Your task to perform on an android device: star an email in the gmail app Image 0: 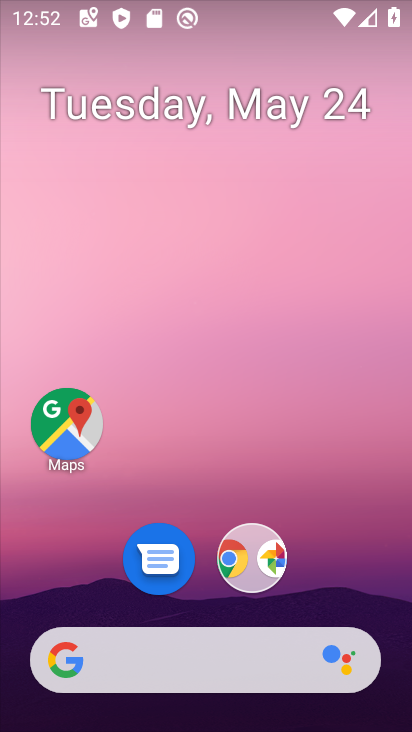
Step 0: drag from (237, 590) to (156, 39)
Your task to perform on an android device: star an email in the gmail app Image 1: 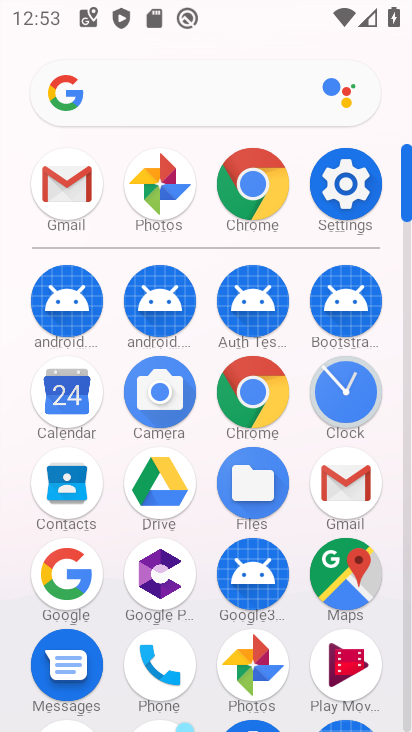
Step 1: click (343, 489)
Your task to perform on an android device: star an email in the gmail app Image 2: 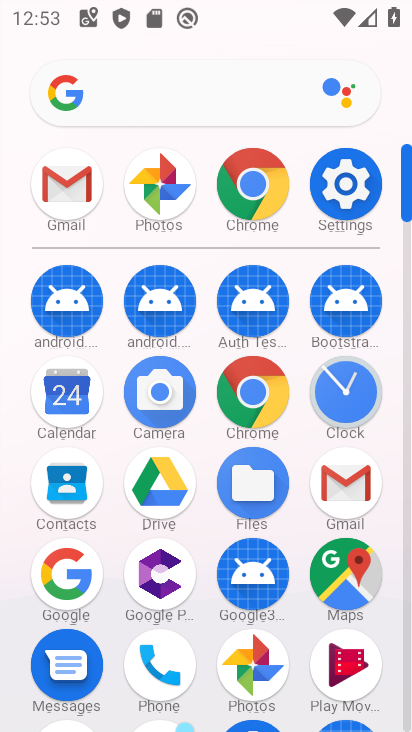
Step 2: click (344, 490)
Your task to perform on an android device: star an email in the gmail app Image 3: 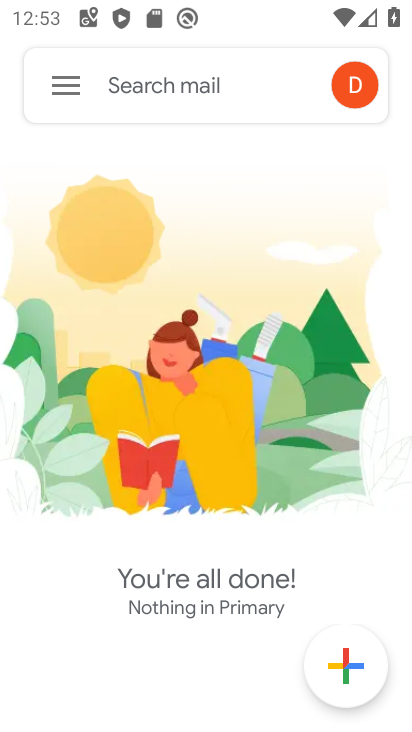
Step 3: click (59, 84)
Your task to perform on an android device: star an email in the gmail app Image 4: 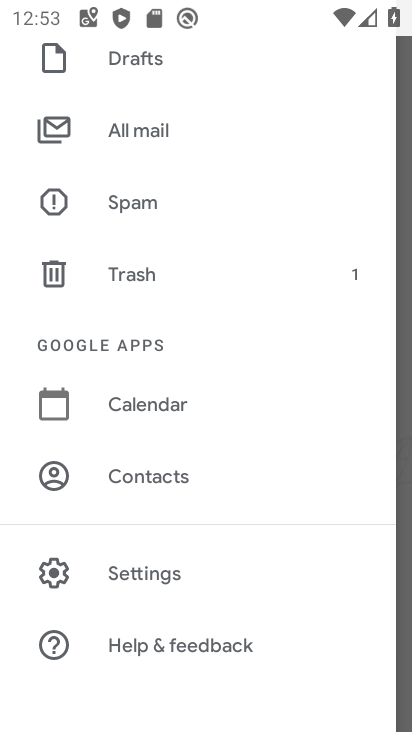
Step 4: click (138, 581)
Your task to perform on an android device: star an email in the gmail app Image 5: 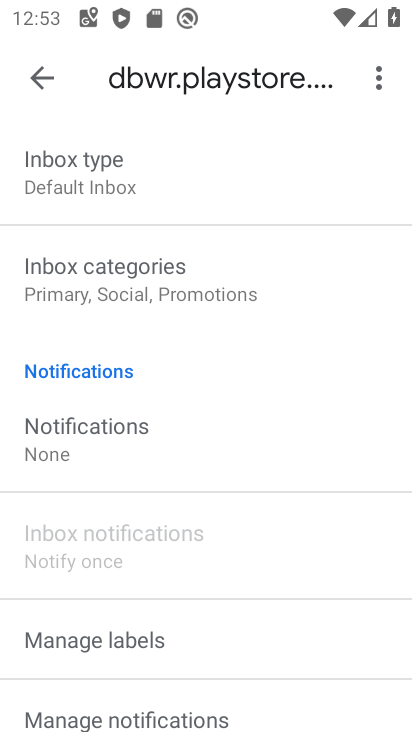
Step 5: drag from (125, 592) to (113, 237)
Your task to perform on an android device: star an email in the gmail app Image 6: 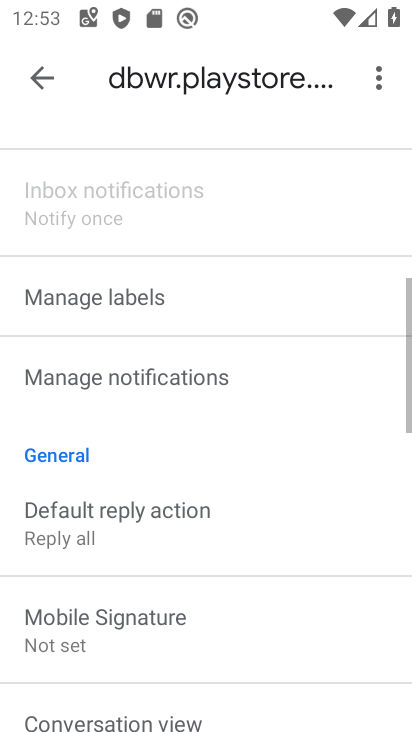
Step 6: drag from (141, 458) to (135, 185)
Your task to perform on an android device: star an email in the gmail app Image 7: 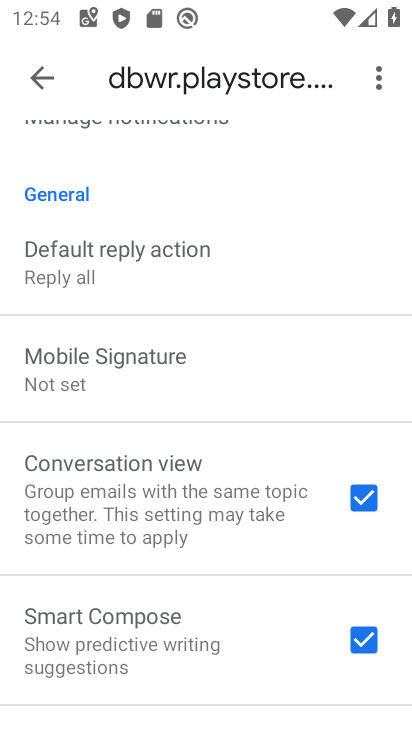
Step 7: click (42, 74)
Your task to perform on an android device: star an email in the gmail app Image 8: 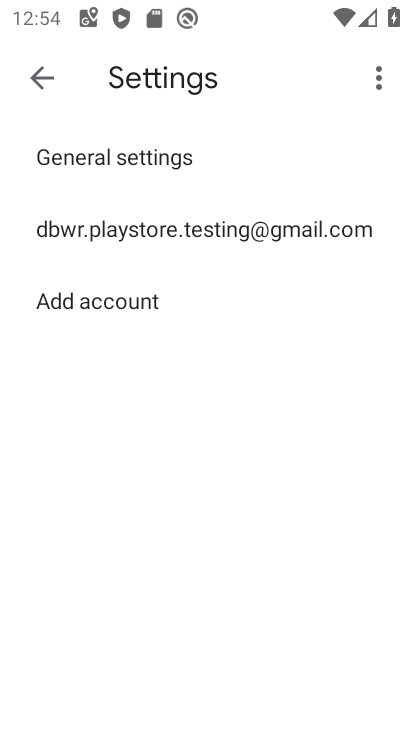
Step 8: click (150, 227)
Your task to perform on an android device: star an email in the gmail app Image 9: 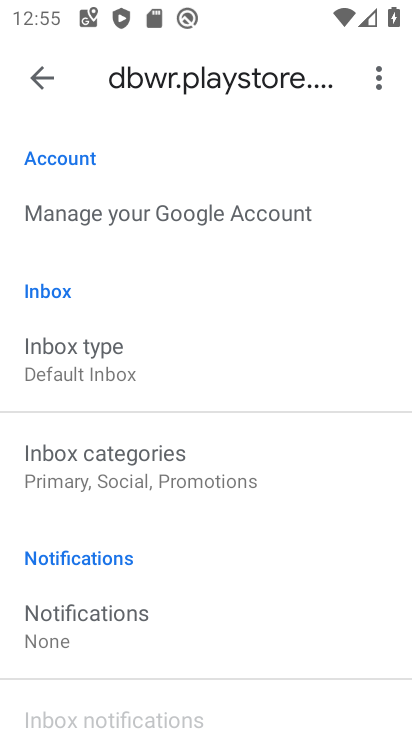
Step 9: drag from (162, 485) to (181, 176)
Your task to perform on an android device: star an email in the gmail app Image 10: 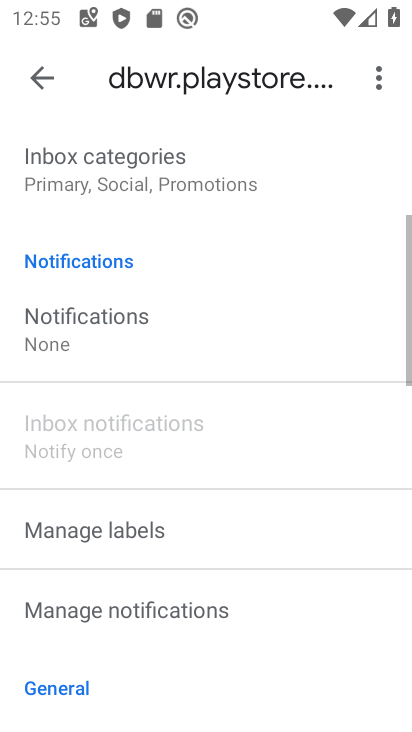
Step 10: drag from (179, 361) to (178, 201)
Your task to perform on an android device: star an email in the gmail app Image 11: 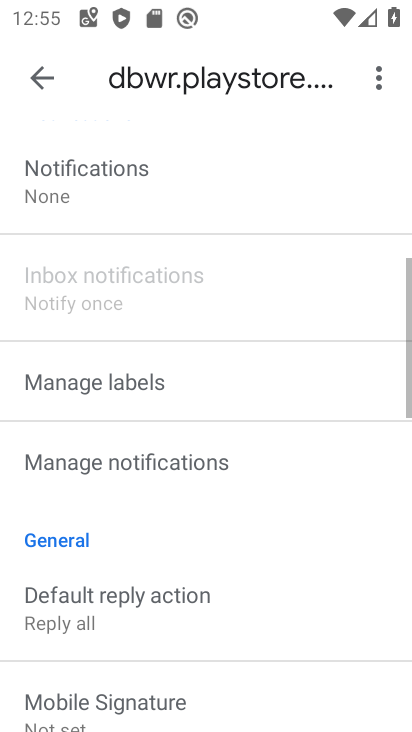
Step 11: drag from (193, 509) to (200, 198)
Your task to perform on an android device: star an email in the gmail app Image 12: 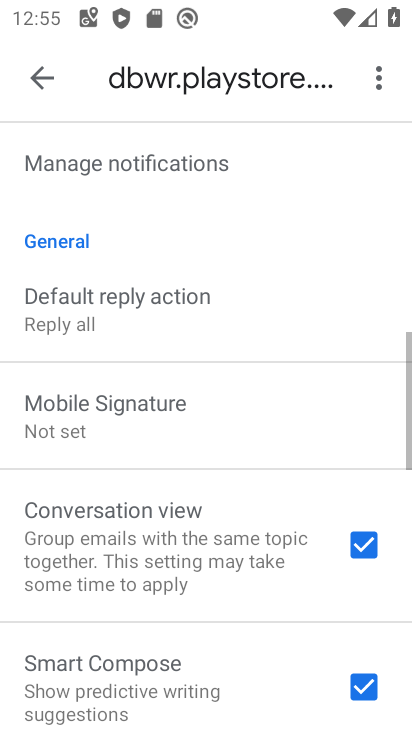
Step 12: drag from (234, 539) to (117, 131)
Your task to perform on an android device: star an email in the gmail app Image 13: 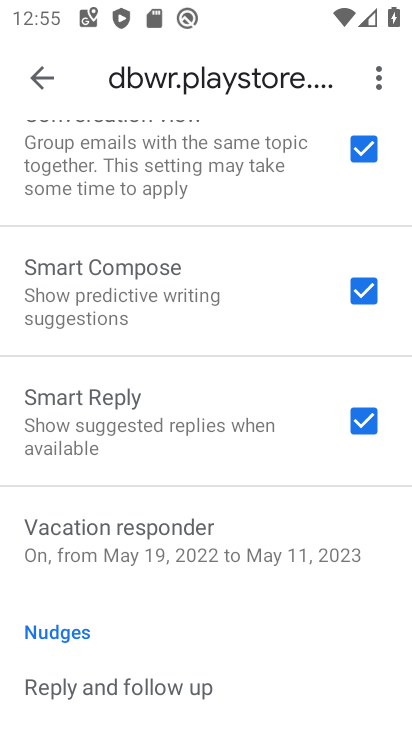
Step 13: drag from (149, 485) to (166, 188)
Your task to perform on an android device: star an email in the gmail app Image 14: 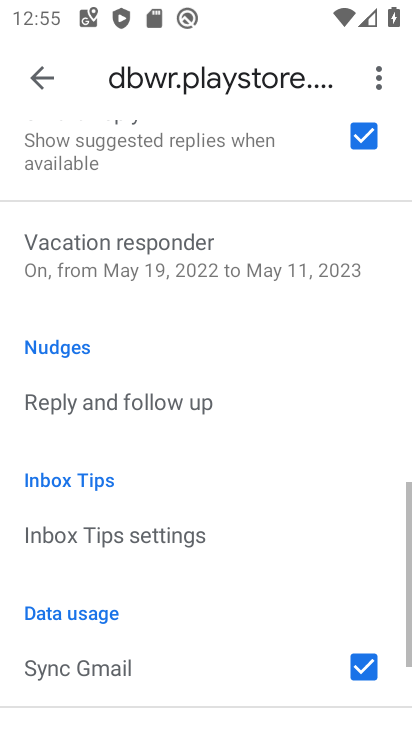
Step 14: drag from (242, 511) to (221, 267)
Your task to perform on an android device: star an email in the gmail app Image 15: 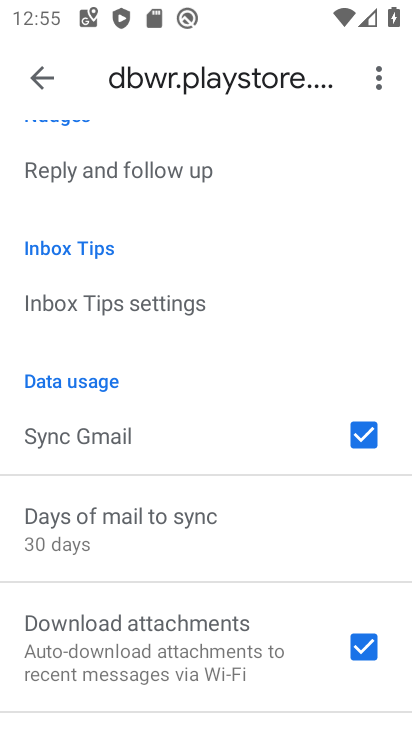
Step 15: click (24, 69)
Your task to perform on an android device: star an email in the gmail app Image 16: 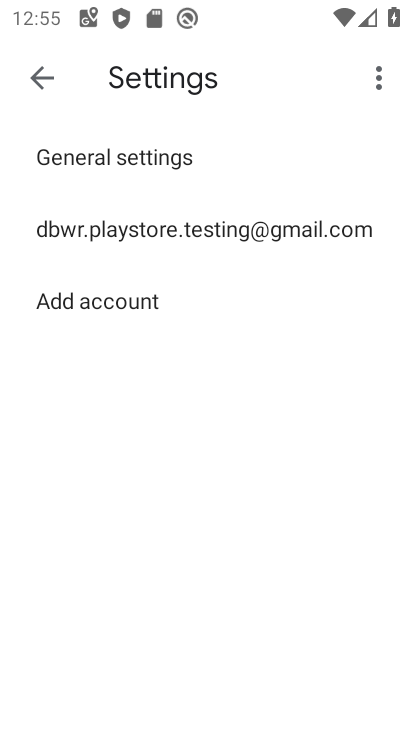
Step 16: click (34, 68)
Your task to perform on an android device: star an email in the gmail app Image 17: 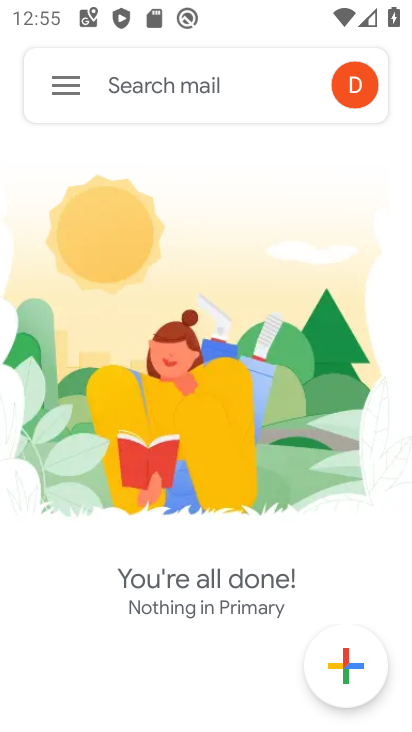
Step 17: click (71, 78)
Your task to perform on an android device: star an email in the gmail app Image 18: 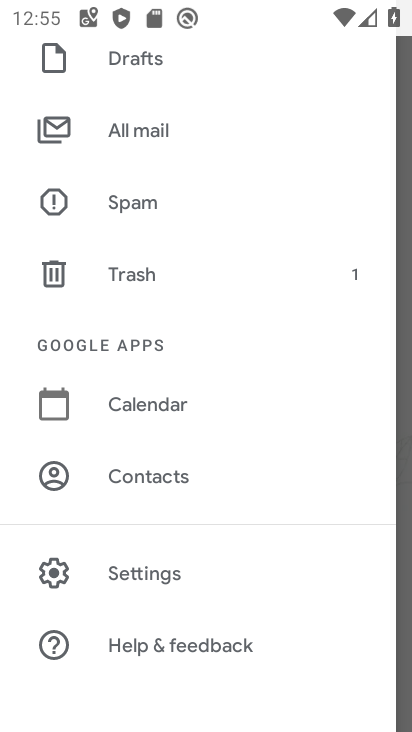
Step 18: click (132, 131)
Your task to perform on an android device: star an email in the gmail app Image 19: 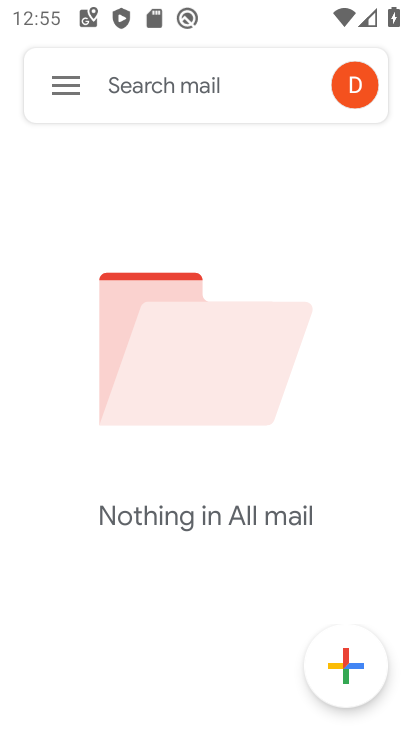
Step 19: task complete